Your task to perform on an android device: turn on the 12-hour format for clock Image 0: 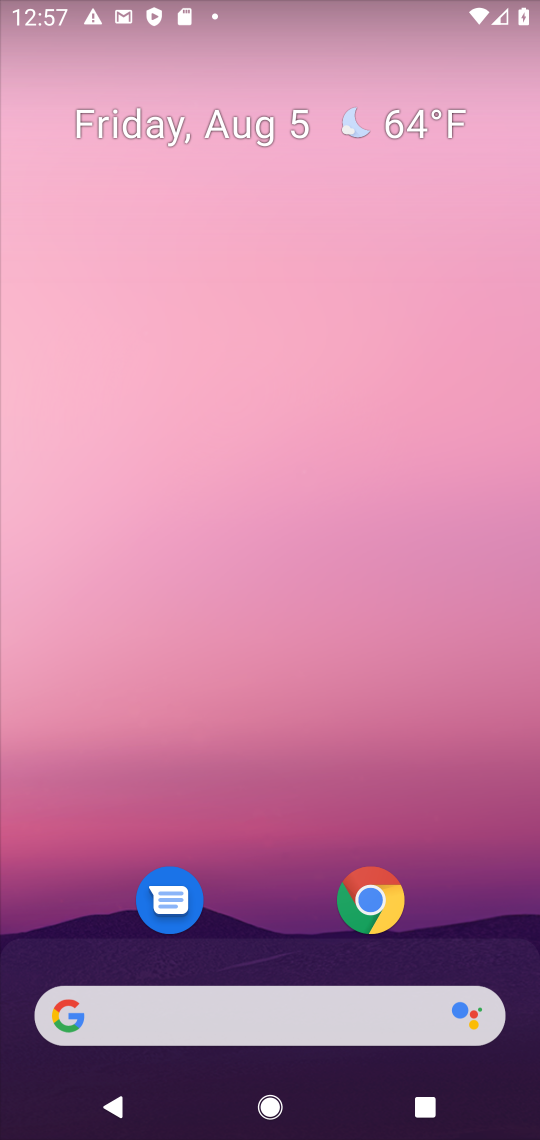
Step 0: drag from (272, 943) to (257, 49)
Your task to perform on an android device: turn on the 12-hour format for clock Image 1: 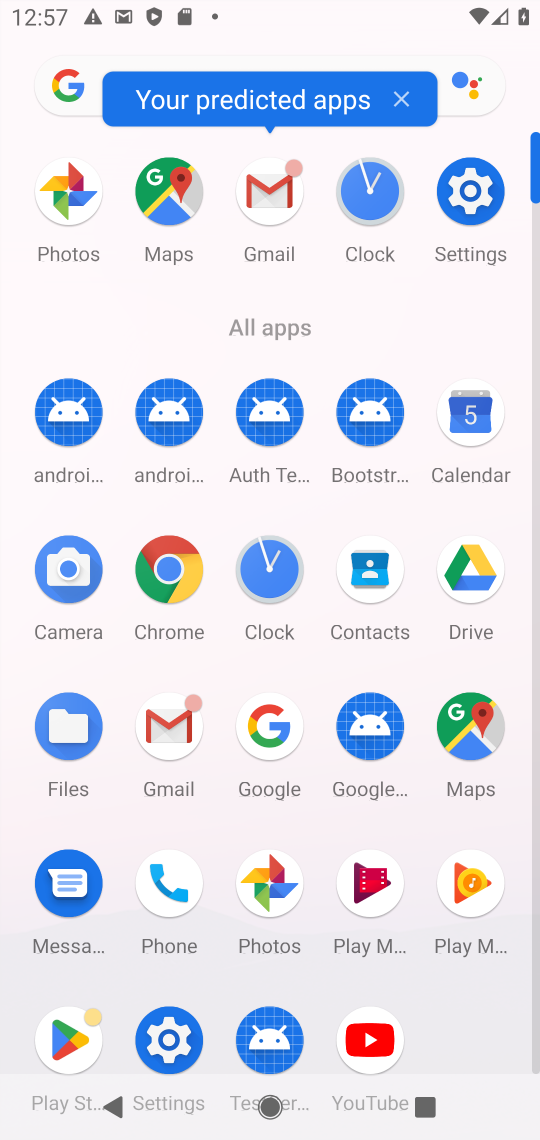
Step 1: click (256, 554)
Your task to perform on an android device: turn on the 12-hour format for clock Image 2: 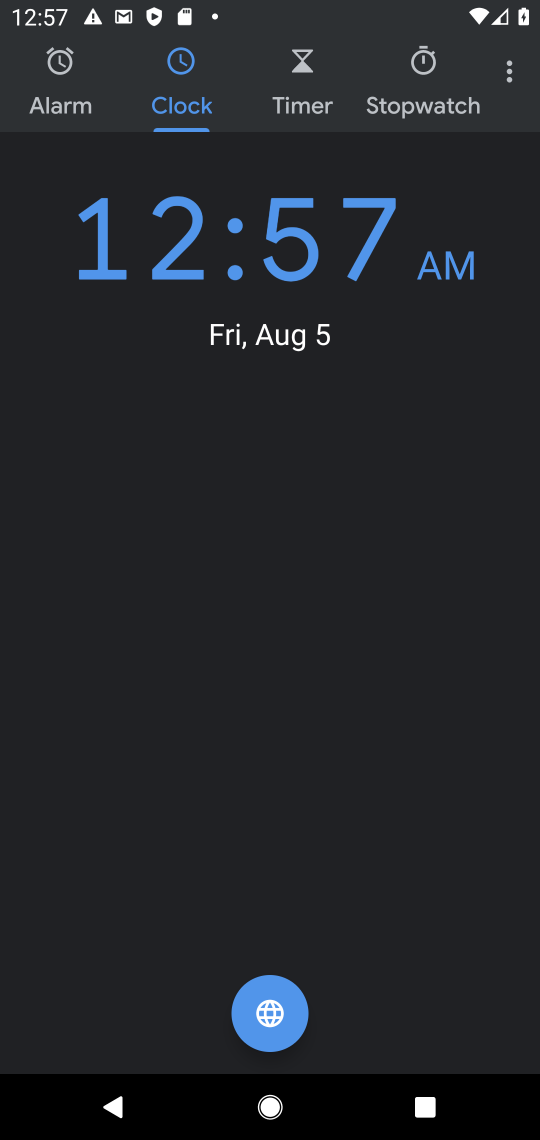
Step 2: click (506, 71)
Your task to perform on an android device: turn on the 12-hour format for clock Image 3: 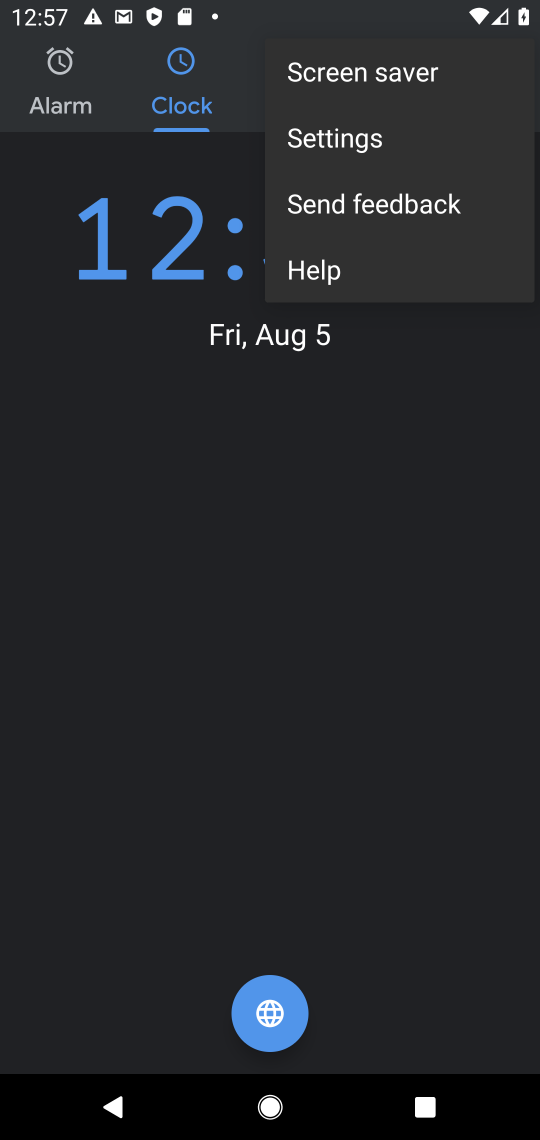
Step 3: click (355, 138)
Your task to perform on an android device: turn on the 12-hour format for clock Image 4: 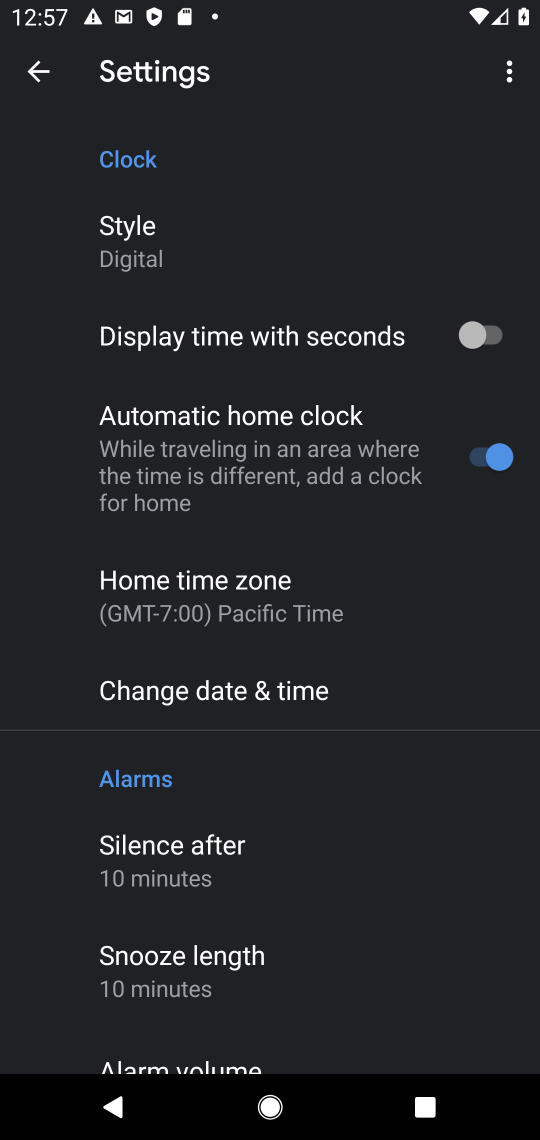
Step 4: click (348, 698)
Your task to perform on an android device: turn on the 12-hour format for clock Image 5: 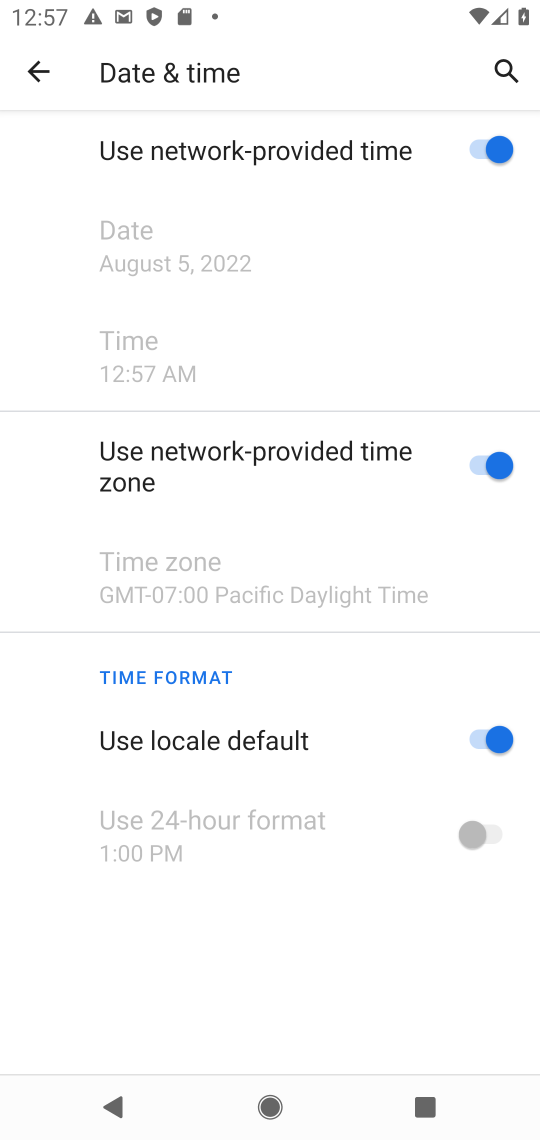
Step 5: task complete